Your task to perform on an android device: open a new tab in the chrome app Image 0: 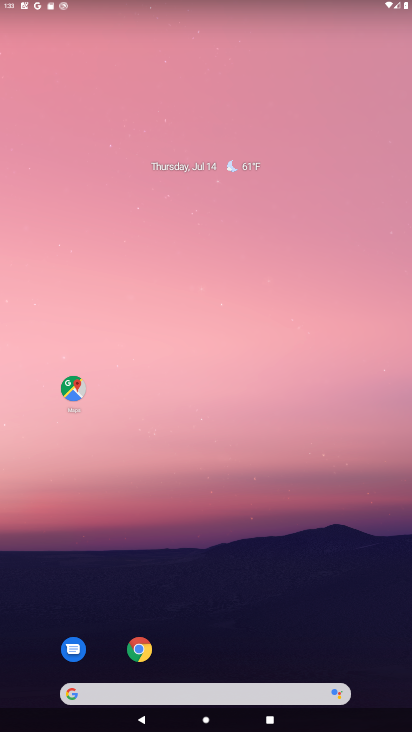
Step 0: drag from (283, 687) to (263, 5)
Your task to perform on an android device: open a new tab in the chrome app Image 1: 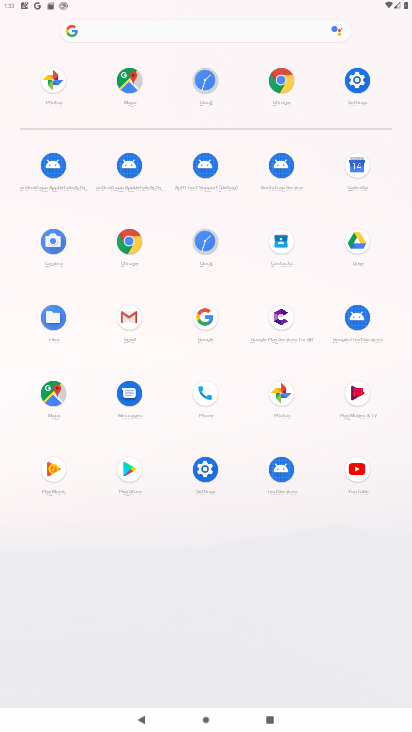
Step 1: click (122, 244)
Your task to perform on an android device: open a new tab in the chrome app Image 2: 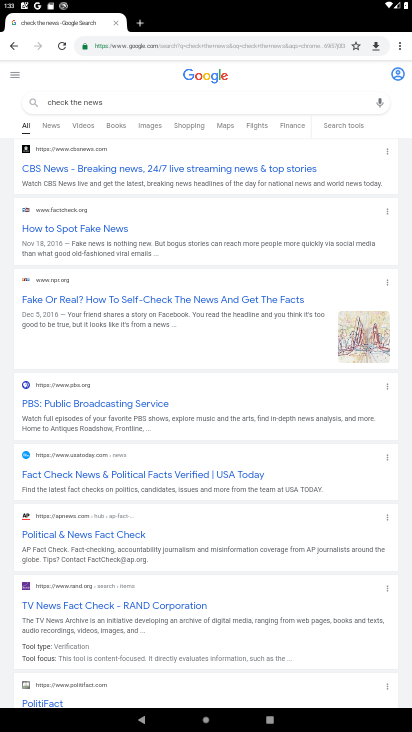
Step 2: task complete